Your task to perform on an android device: turn off airplane mode Image 0: 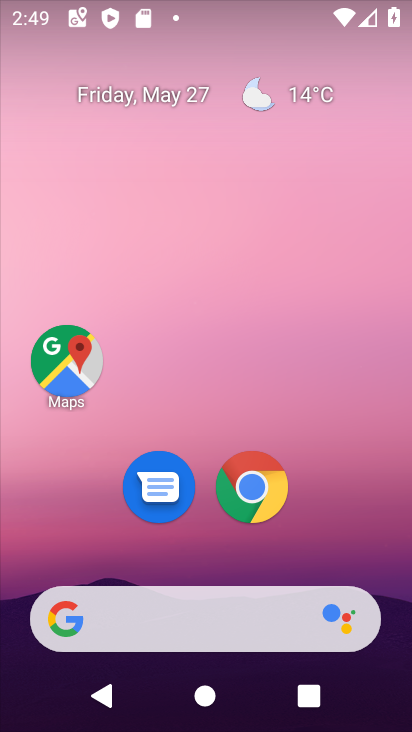
Step 0: drag from (339, 16) to (313, 714)
Your task to perform on an android device: turn off airplane mode Image 1: 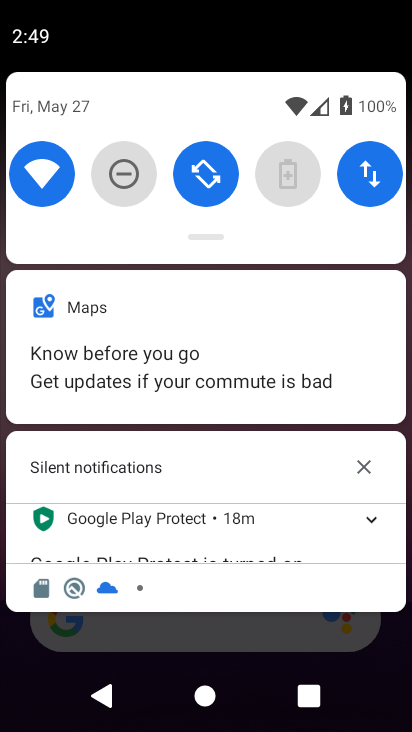
Step 1: task complete